Your task to perform on an android device: empty trash in google photos Image 0: 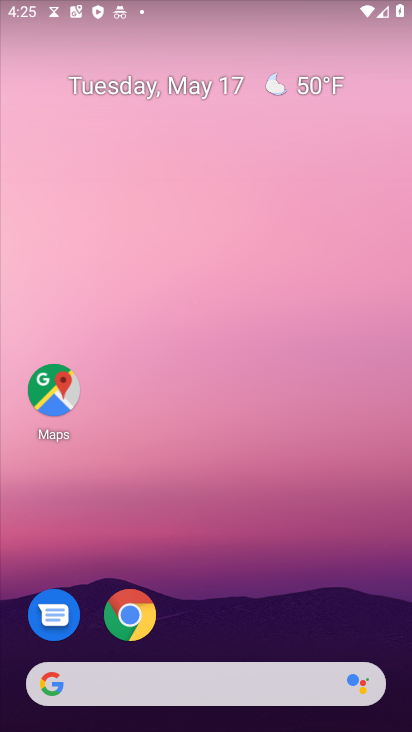
Step 0: drag from (284, 699) to (205, 109)
Your task to perform on an android device: empty trash in google photos Image 1: 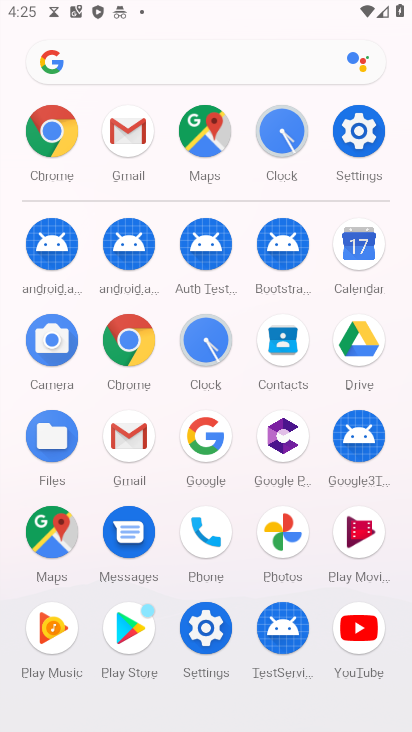
Step 1: click (282, 535)
Your task to perform on an android device: empty trash in google photos Image 2: 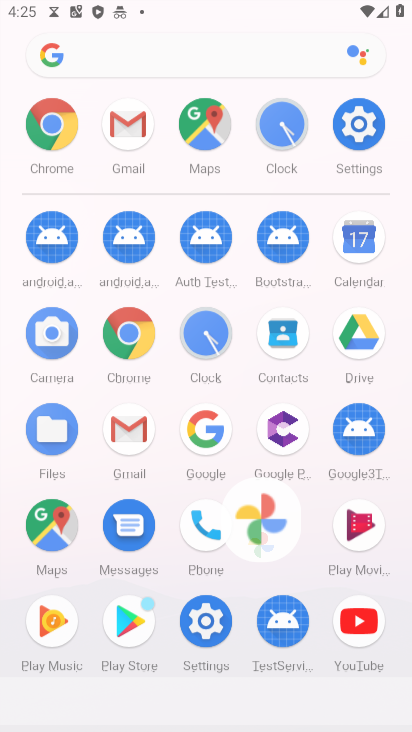
Step 2: click (282, 535)
Your task to perform on an android device: empty trash in google photos Image 3: 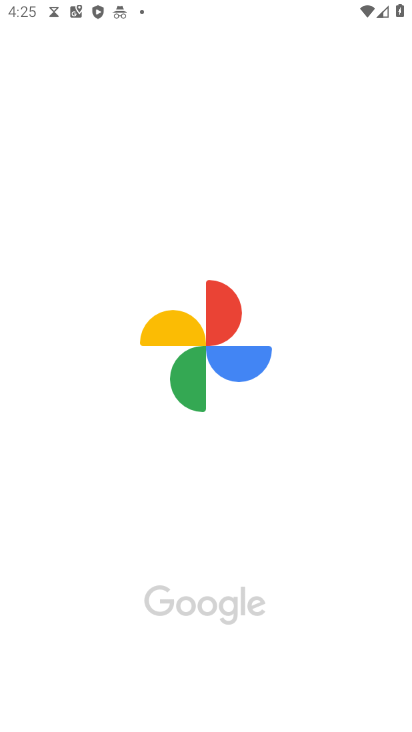
Step 3: click (282, 535)
Your task to perform on an android device: empty trash in google photos Image 4: 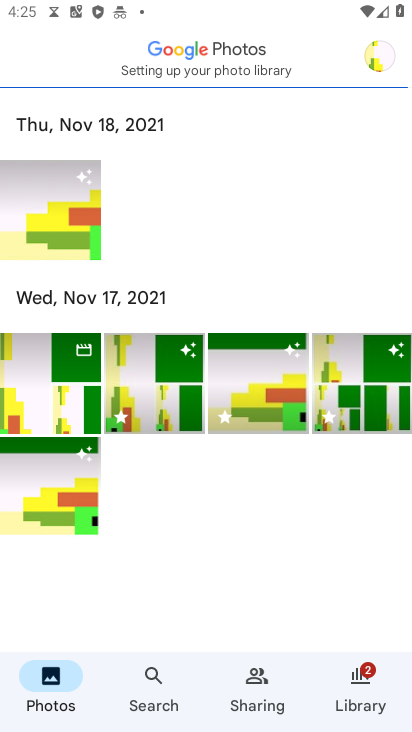
Step 4: task complete